Your task to perform on an android device: View the shopping cart on newegg.com. Image 0: 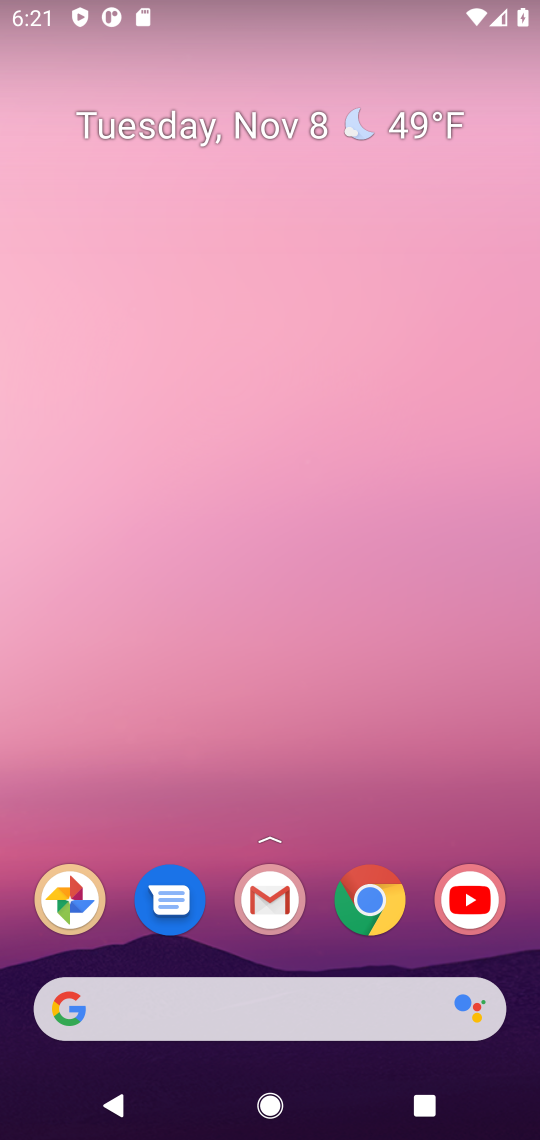
Step 0: drag from (181, 1033) to (258, 229)
Your task to perform on an android device: View the shopping cart on newegg.com. Image 1: 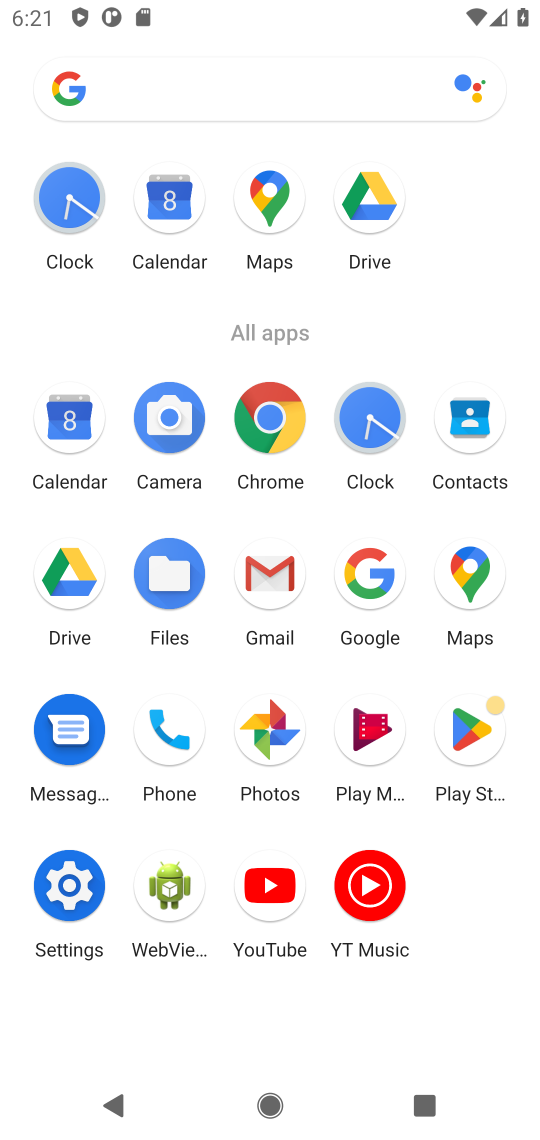
Step 1: click (363, 573)
Your task to perform on an android device: View the shopping cart on newegg.com. Image 2: 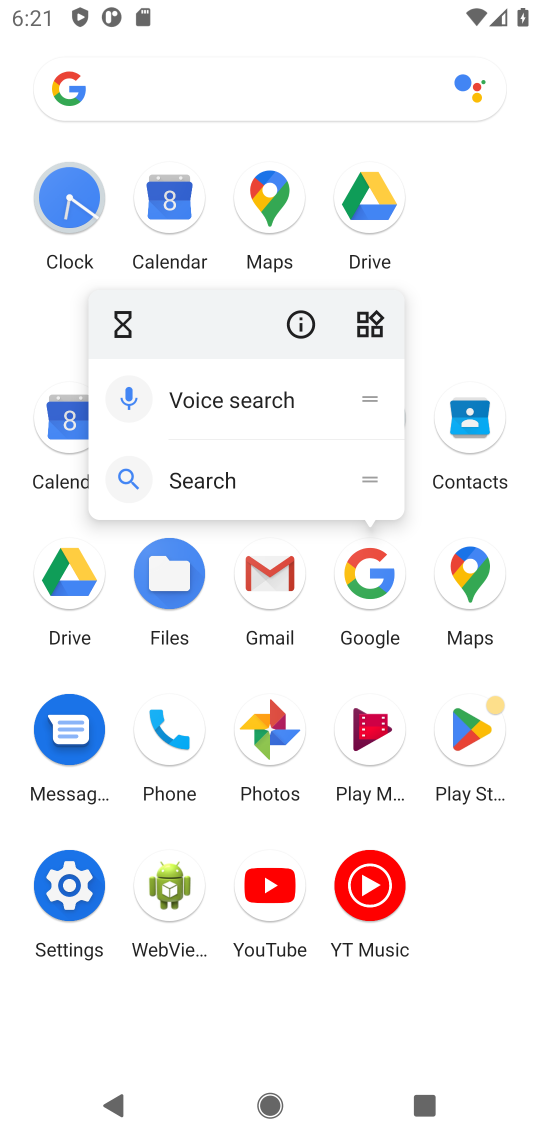
Step 2: click (363, 573)
Your task to perform on an android device: View the shopping cart on newegg.com. Image 3: 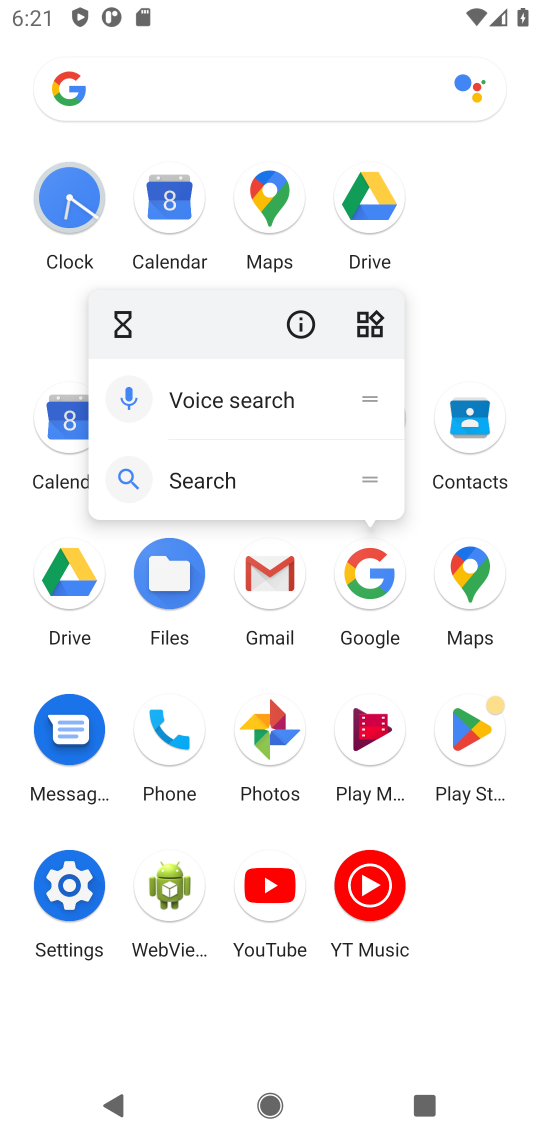
Step 3: click (363, 573)
Your task to perform on an android device: View the shopping cart on newegg.com. Image 4: 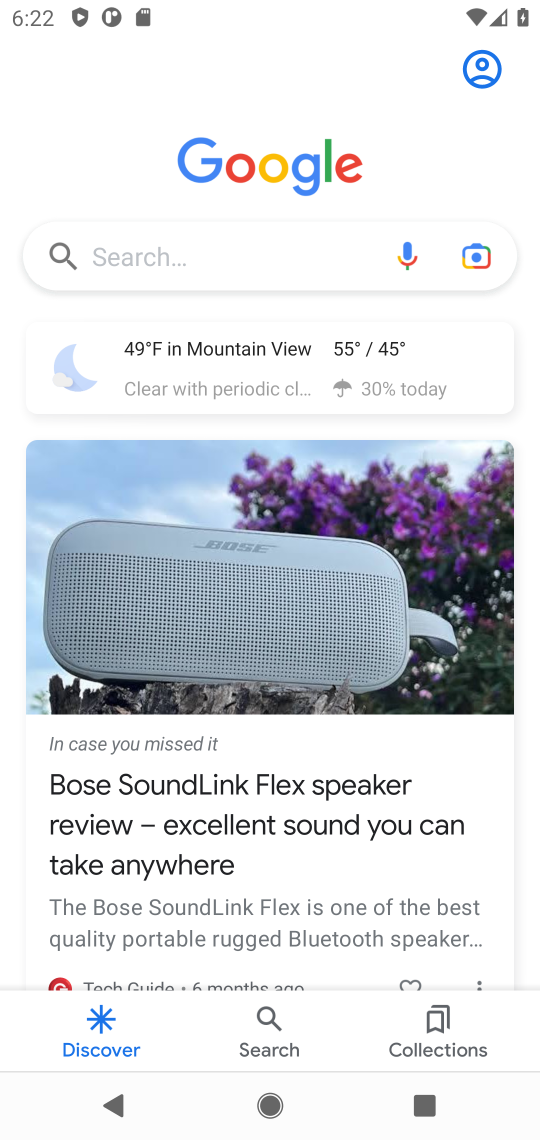
Step 4: click (262, 258)
Your task to perform on an android device: View the shopping cart on newegg.com. Image 5: 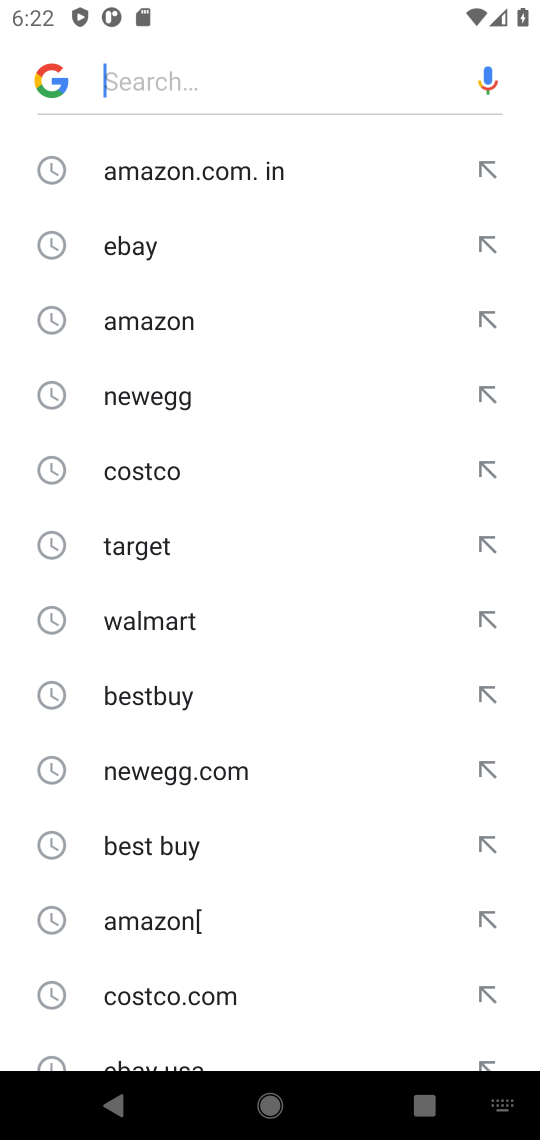
Step 5: type "newegg "
Your task to perform on an android device: View the shopping cart on newegg.com. Image 6: 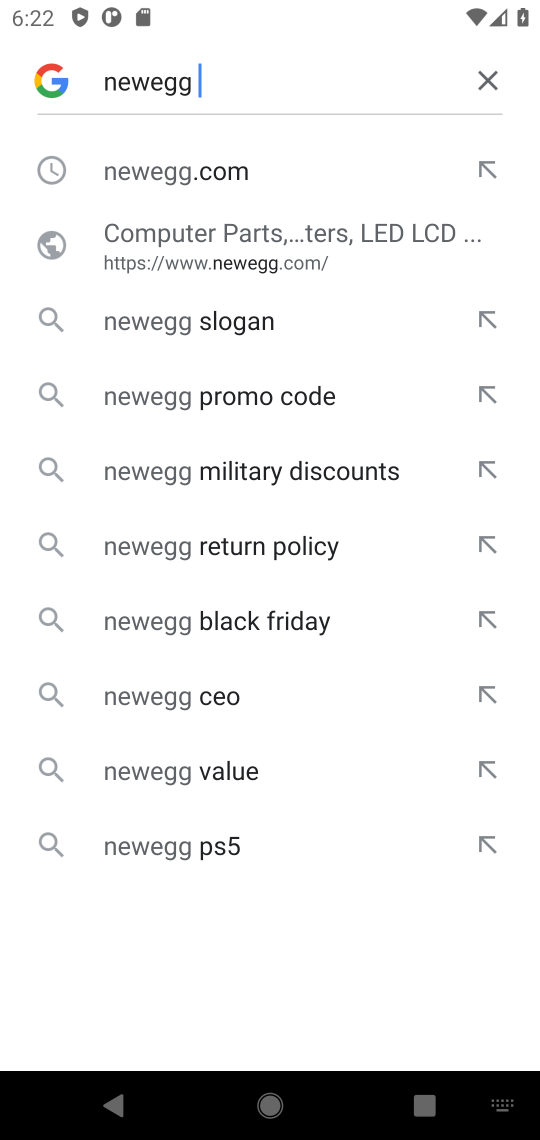
Step 6: click (217, 183)
Your task to perform on an android device: View the shopping cart on newegg.com. Image 7: 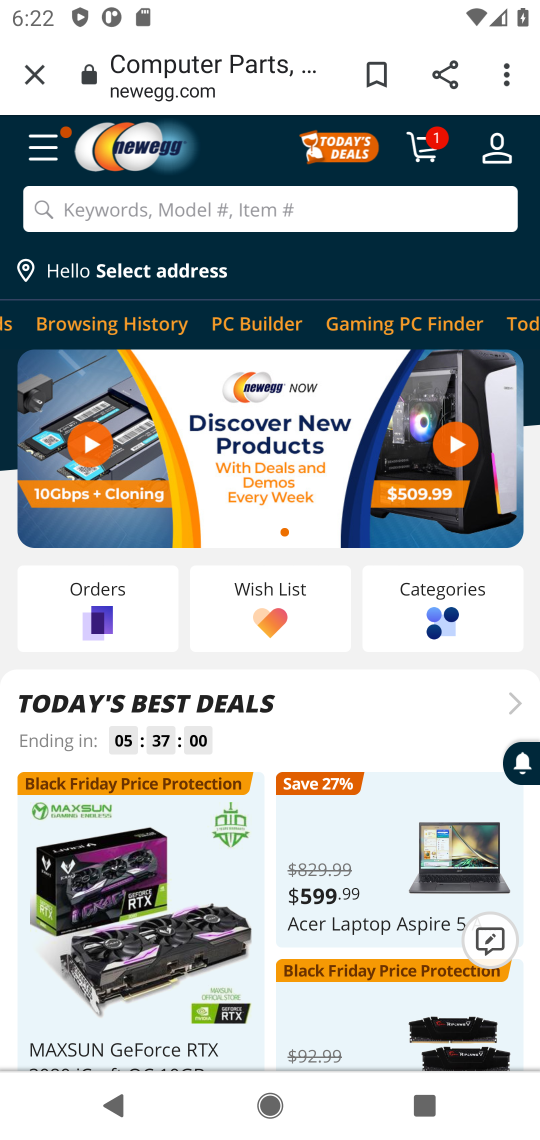
Step 7: click (422, 137)
Your task to perform on an android device: View the shopping cart on newegg.com. Image 8: 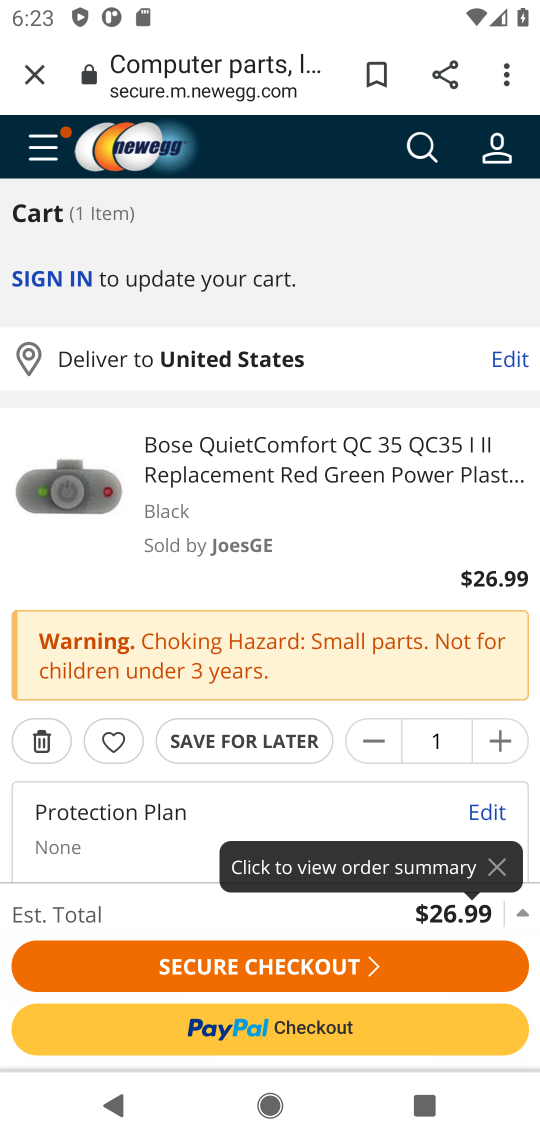
Step 8: task complete